Your task to perform on an android device: toggle pop-ups in chrome Image 0: 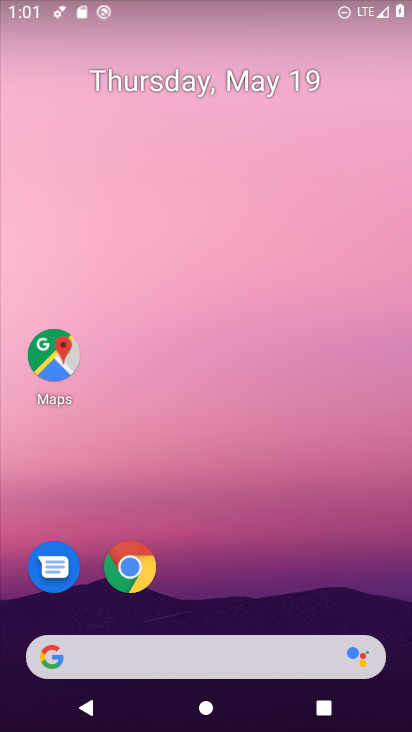
Step 0: click (143, 568)
Your task to perform on an android device: toggle pop-ups in chrome Image 1: 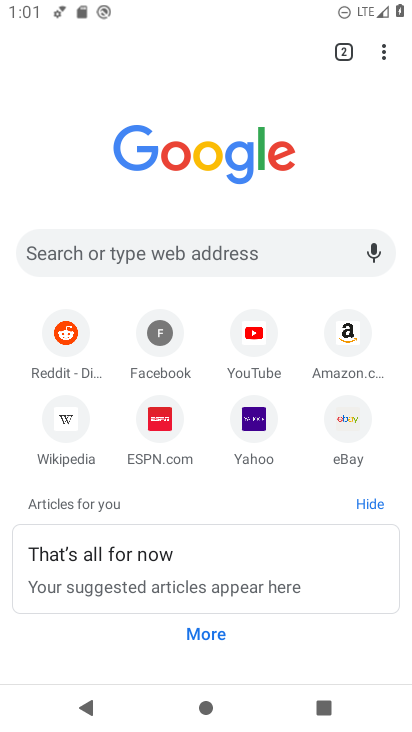
Step 1: click (378, 52)
Your task to perform on an android device: toggle pop-ups in chrome Image 2: 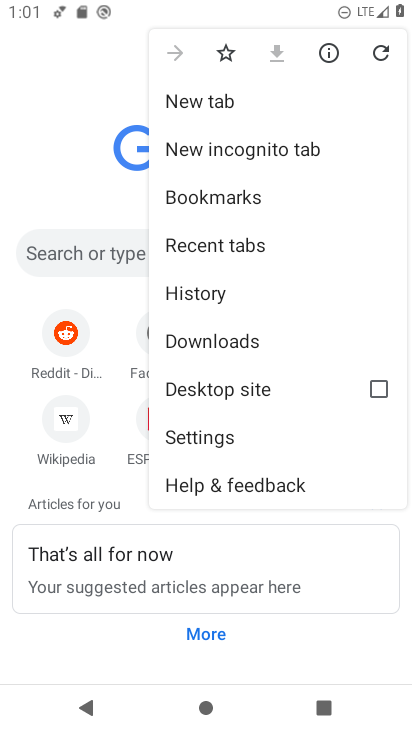
Step 2: click (239, 429)
Your task to perform on an android device: toggle pop-ups in chrome Image 3: 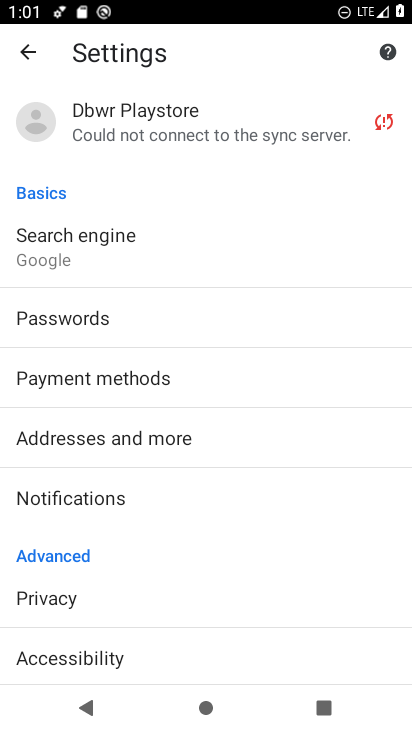
Step 3: drag from (266, 582) to (267, 256)
Your task to perform on an android device: toggle pop-ups in chrome Image 4: 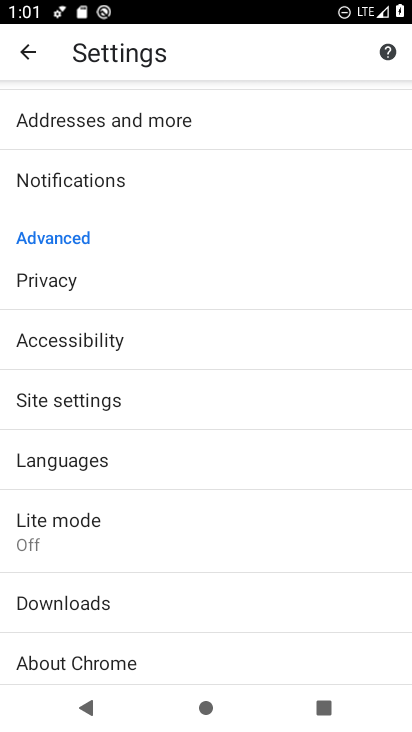
Step 4: click (226, 400)
Your task to perform on an android device: toggle pop-ups in chrome Image 5: 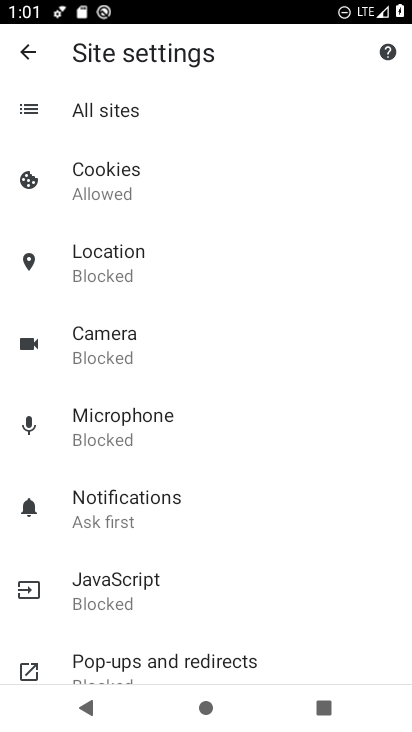
Step 5: drag from (248, 524) to (230, 370)
Your task to perform on an android device: toggle pop-ups in chrome Image 6: 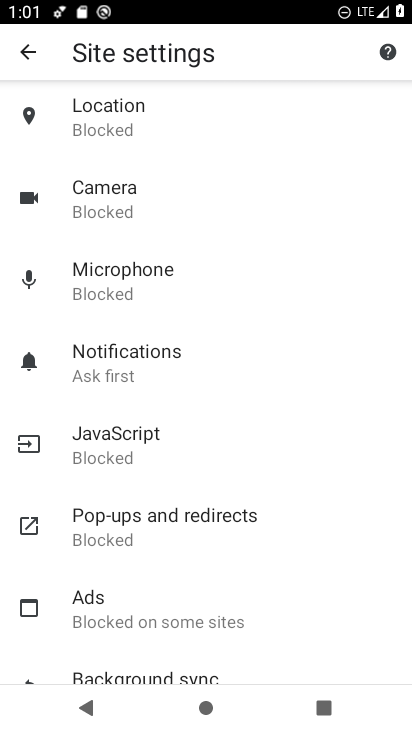
Step 6: click (255, 524)
Your task to perform on an android device: toggle pop-ups in chrome Image 7: 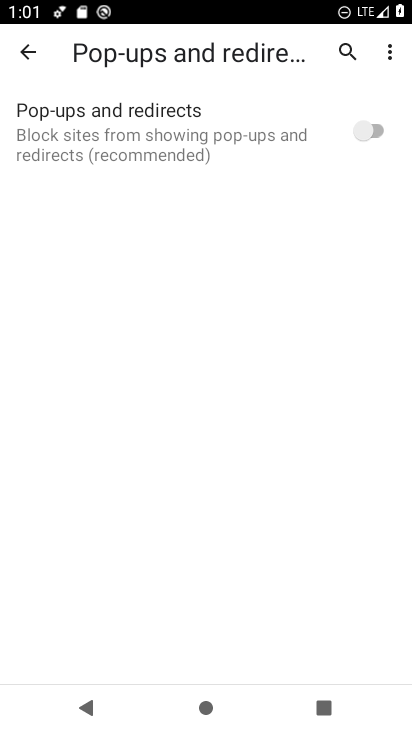
Step 7: click (372, 125)
Your task to perform on an android device: toggle pop-ups in chrome Image 8: 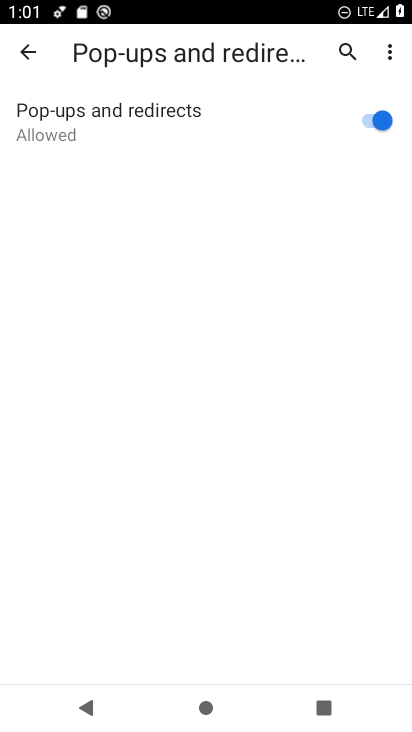
Step 8: task complete